Your task to perform on an android device: Search for Mexican restaurants on Maps Image 0: 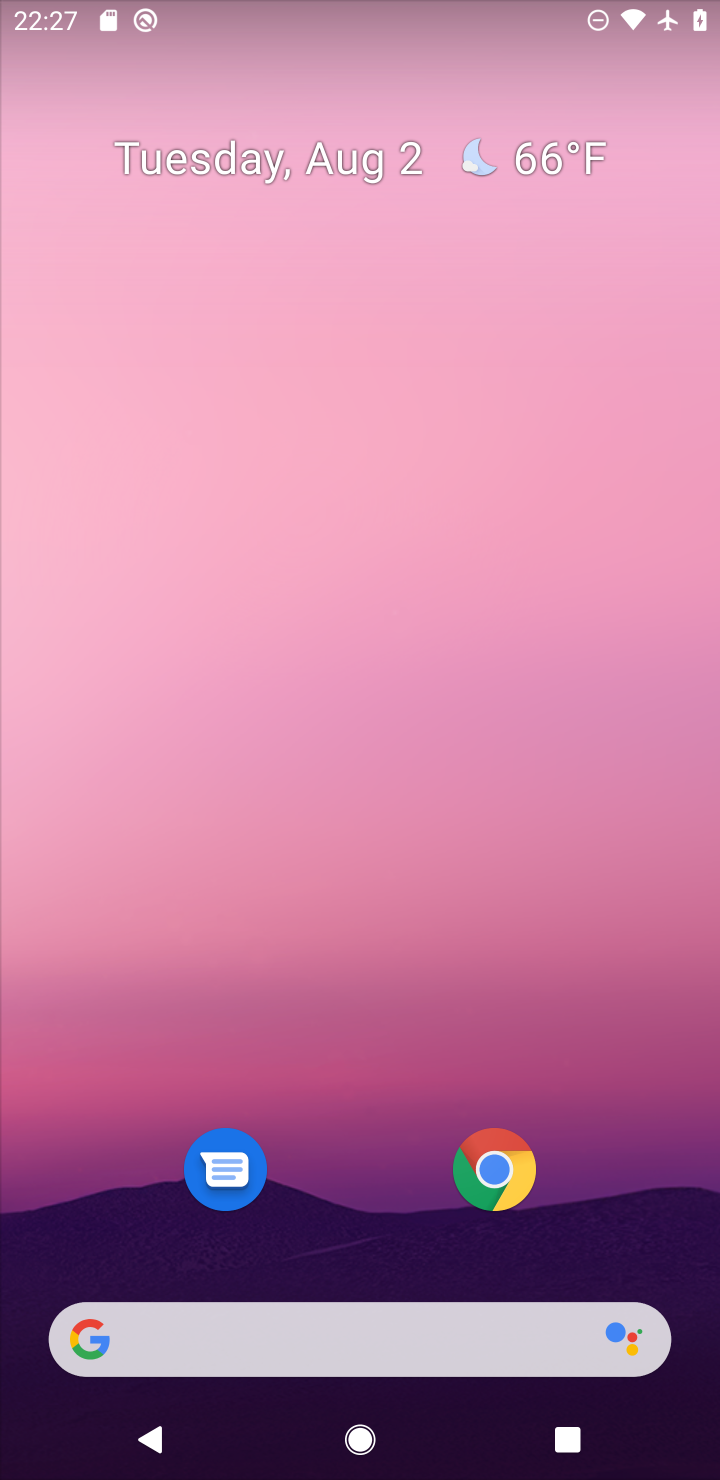
Step 0: drag from (330, 1218) to (257, 119)
Your task to perform on an android device: Search for Mexican restaurants on Maps Image 1: 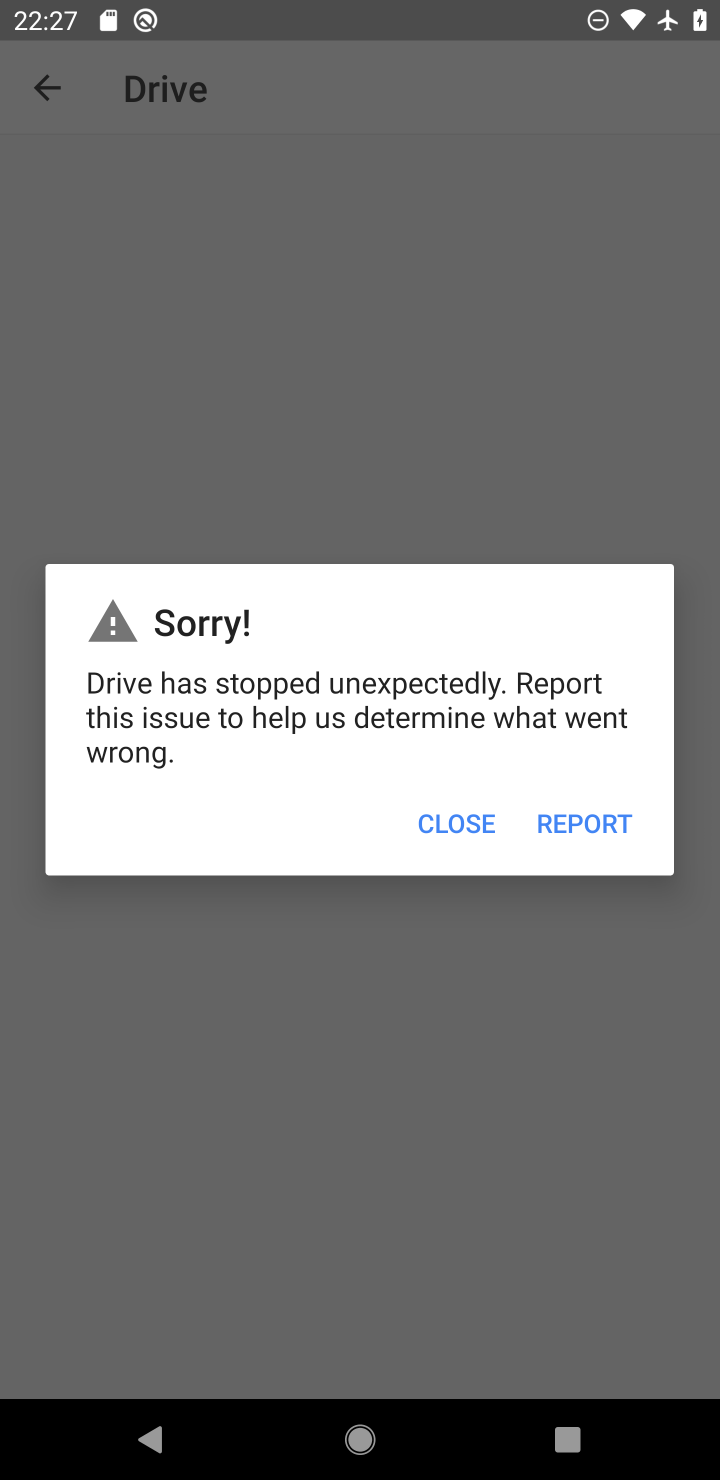
Step 1: press home button
Your task to perform on an android device: Search for Mexican restaurants on Maps Image 2: 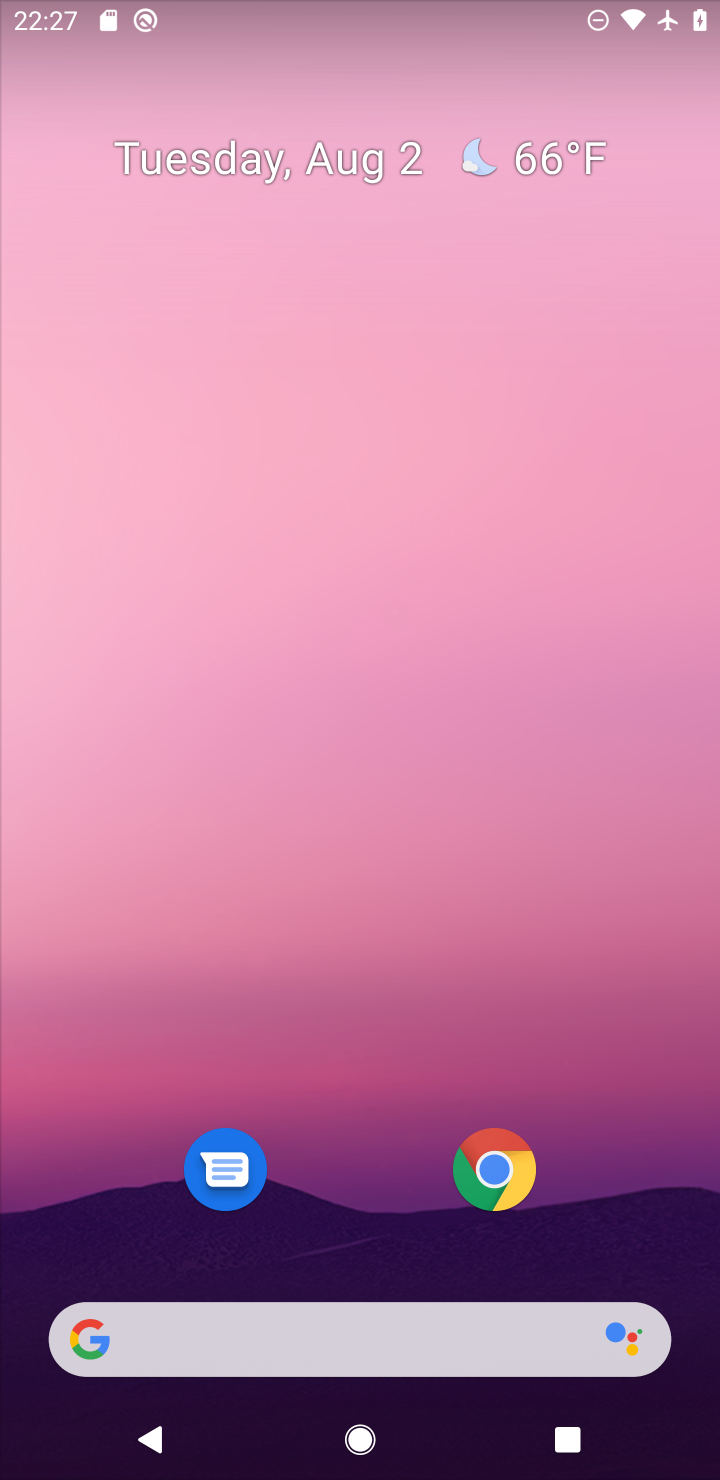
Step 2: drag from (344, 991) to (344, 55)
Your task to perform on an android device: Search for Mexican restaurants on Maps Image 3: 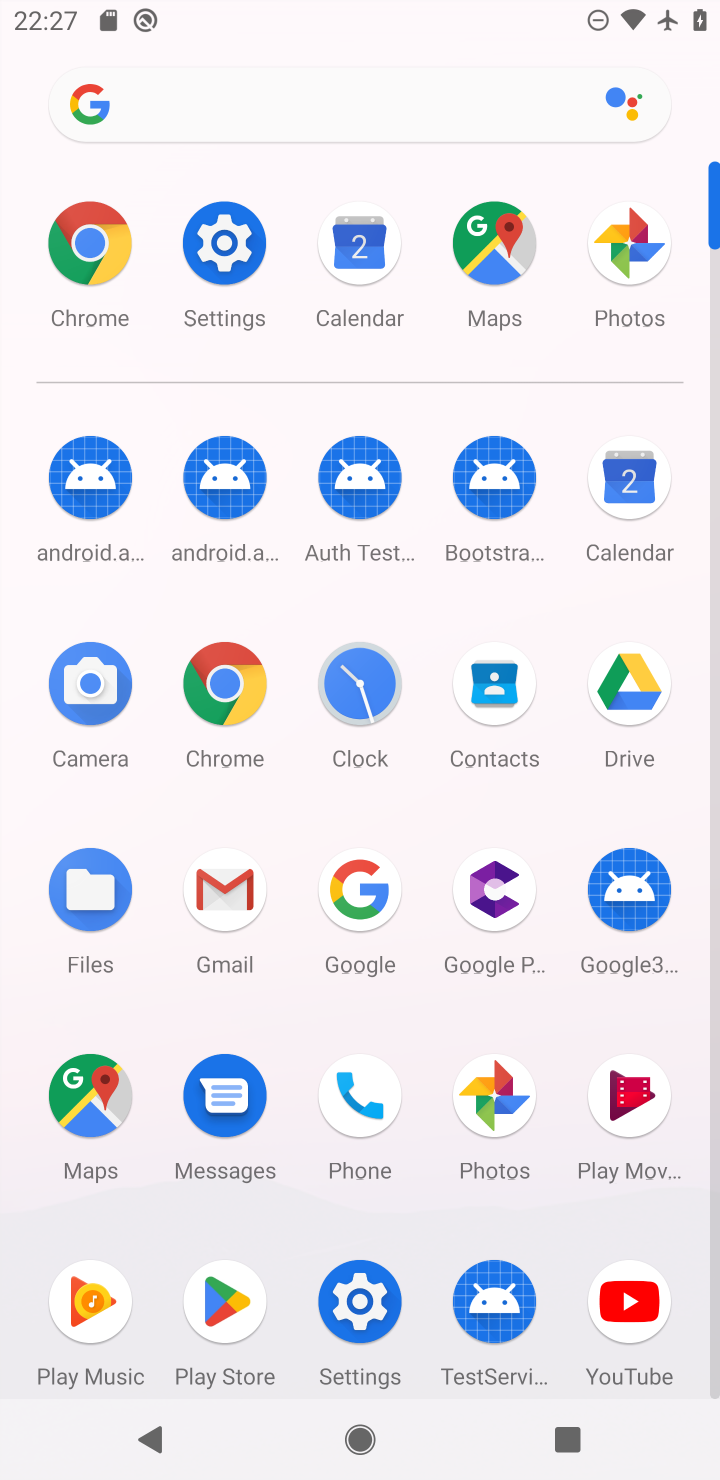
Step 3: click (88, 1096)
Your task to perform on an android device: Search for Mexican restaurants on Maps Image 4: 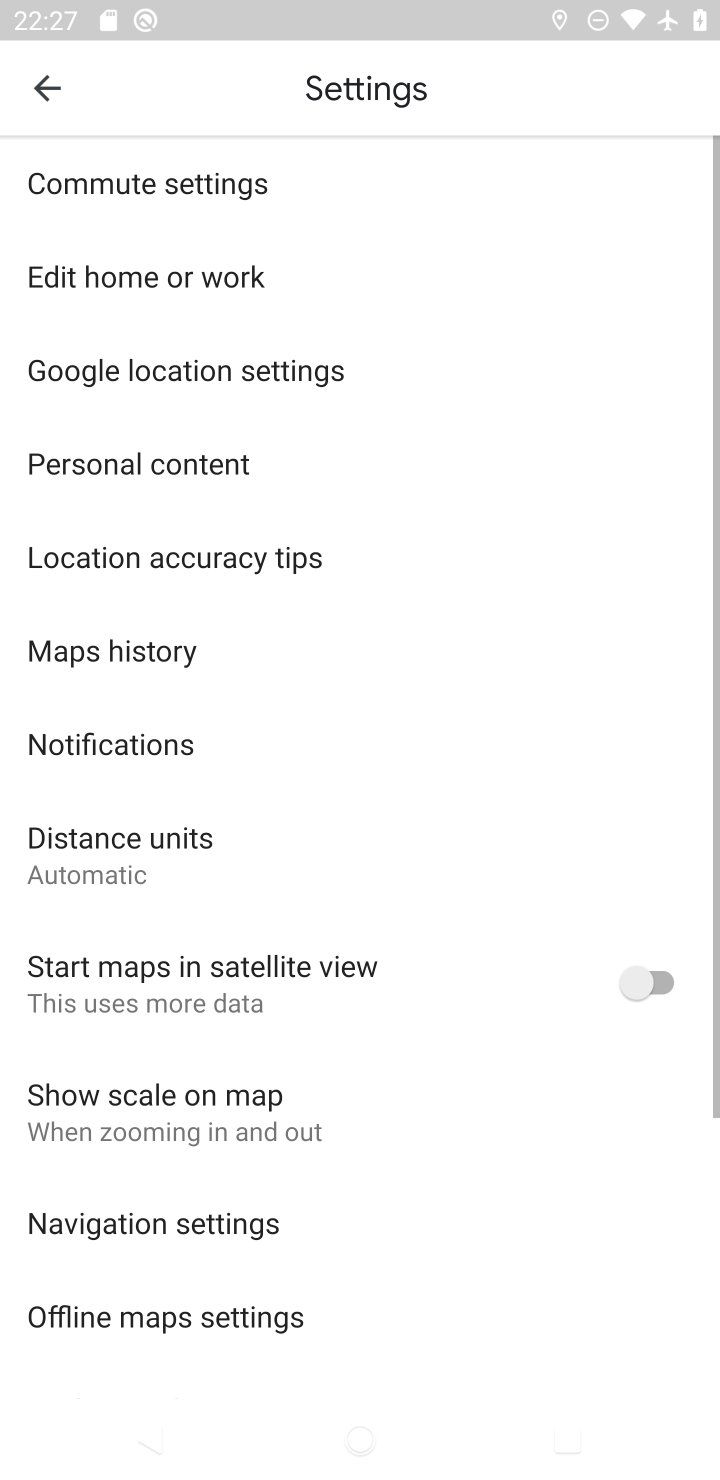
Step 4: click (41, 87)
Your task to perform on an android device: Search for Mexican restaurants on Maps Image 5: 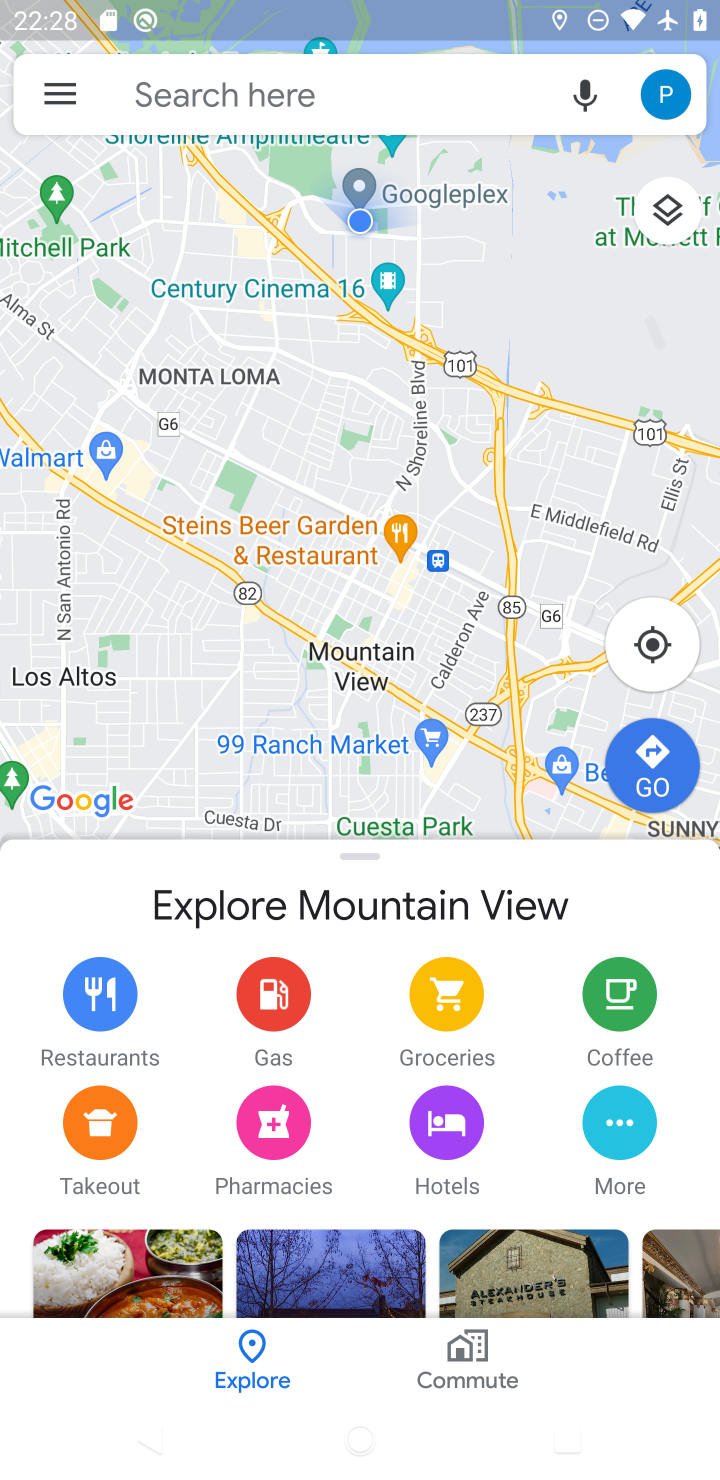
Step 5: click (359, 100)
Your task to perform on an android device: Search for Mexican restaurants on Maps Image 6: 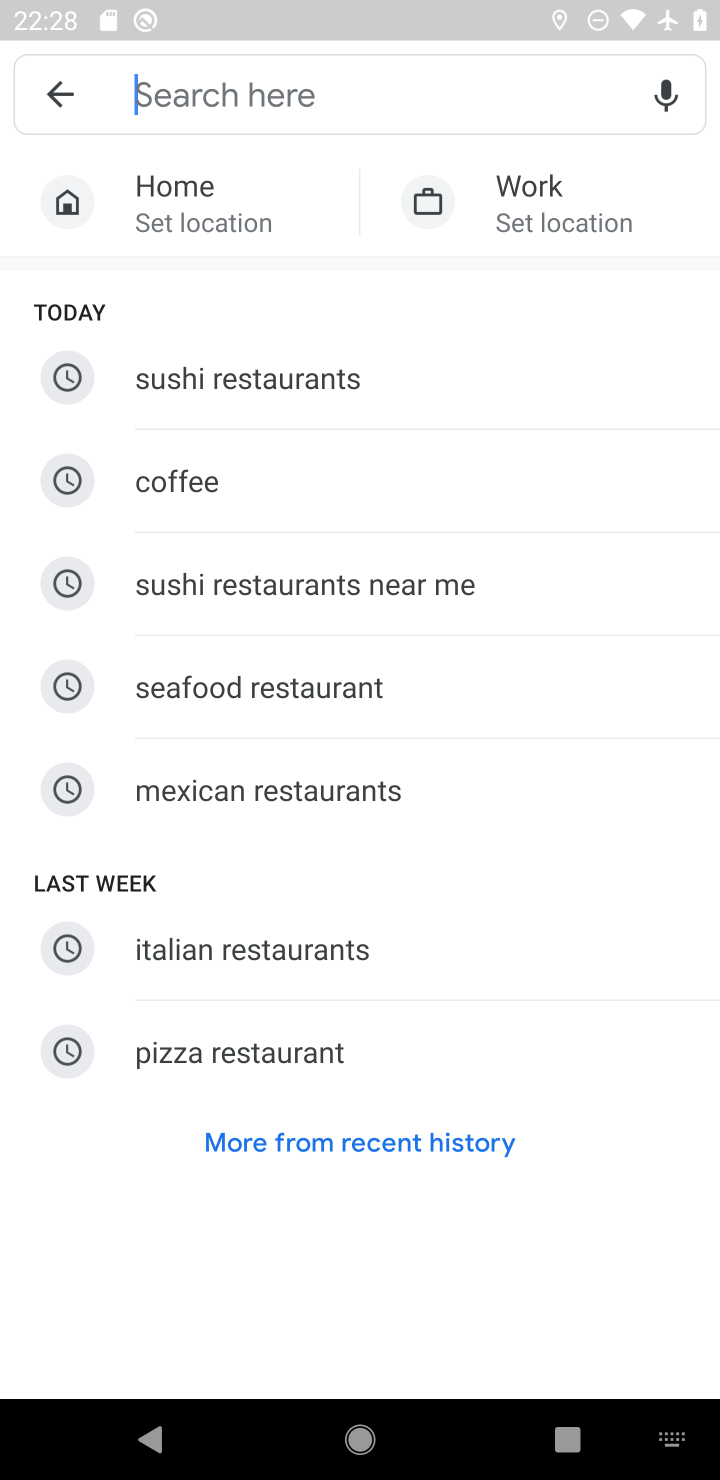
Step 6: type "Mexican restaurants"
Your task to perform on an android device: Search for Mexican restaurants on Maps Image 7: 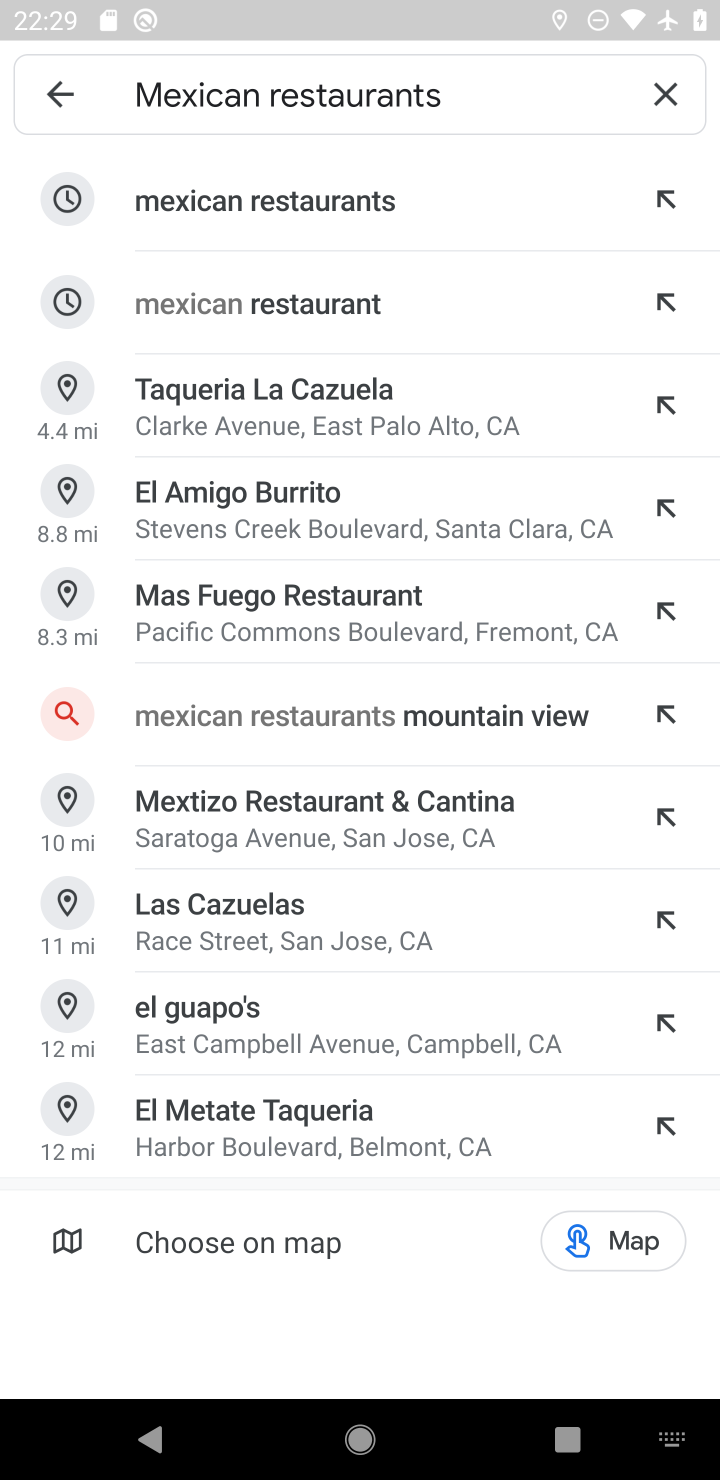
Step 7: click (326, 205)
Your task to perform on an android device: Search for Mexican restaurants on Maps Image 8: 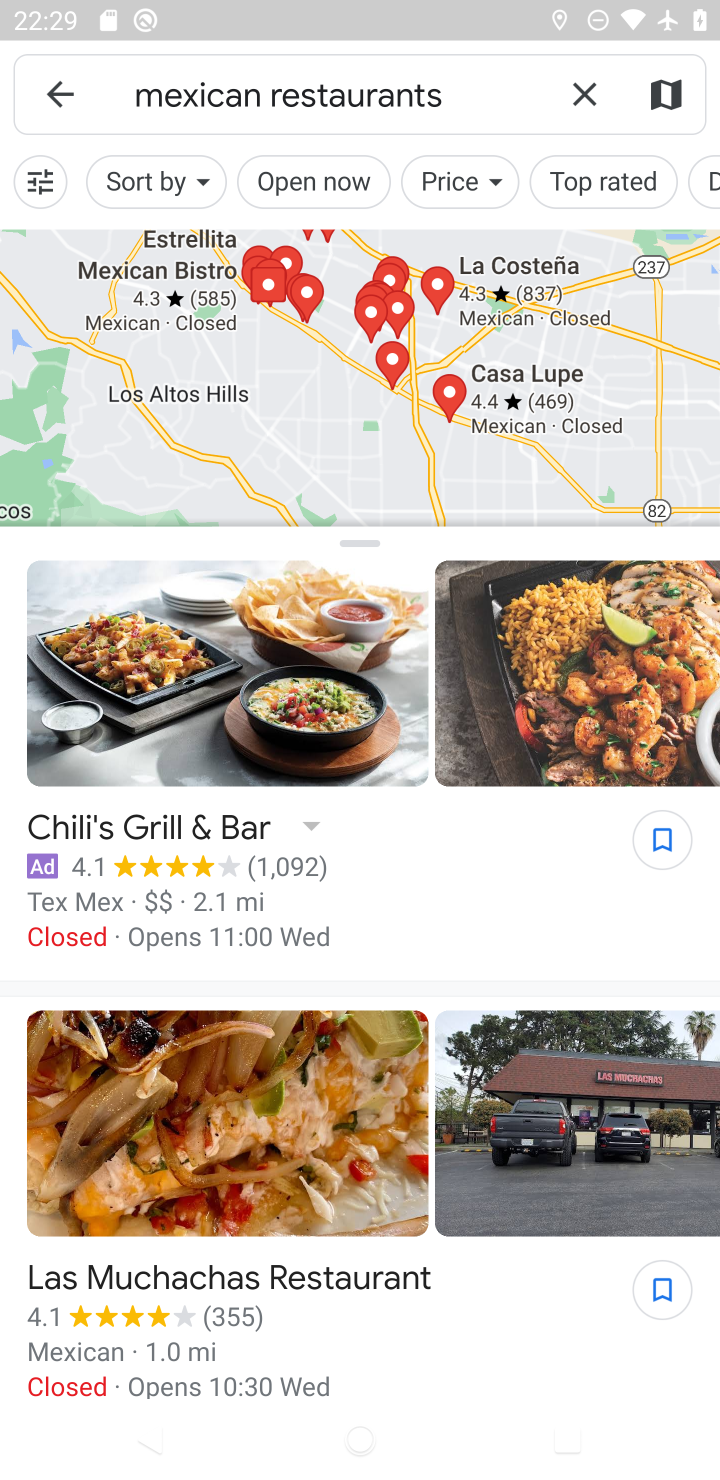
Step 8: task complete